Your task to perform on an android device: set default search engine in the chrome app Image 0: 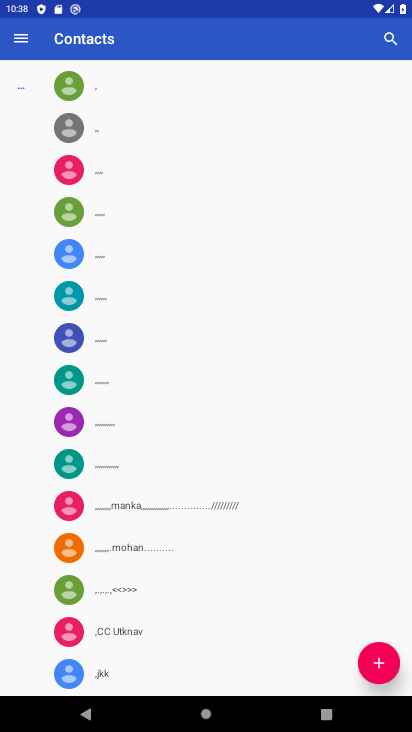
Step 0: press home button
Your task to perform on an android device: set default search engine in the chrome app Image 1: 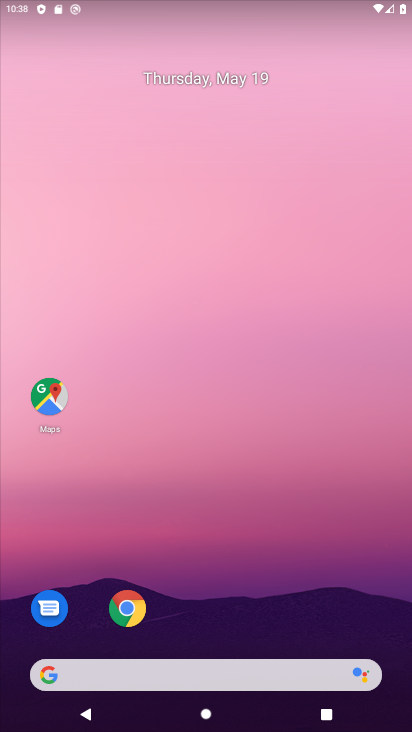
Step 1: click (113, 599)
Your task to perform on an android device: set default search engine in the chrome app Image 2: 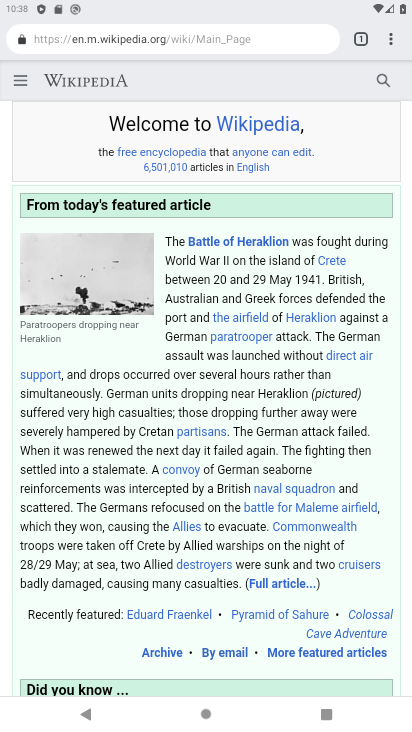
Step 2: press home button
Your task to perform on an android device: set default search engine in the chrome app Image 3: 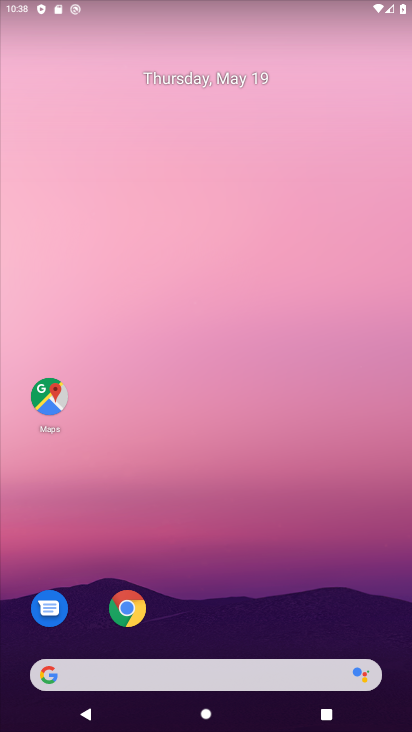
Step 3: click (130, 596)
Your task to perform on an android device: set default search engine in the chrome app Image 4: 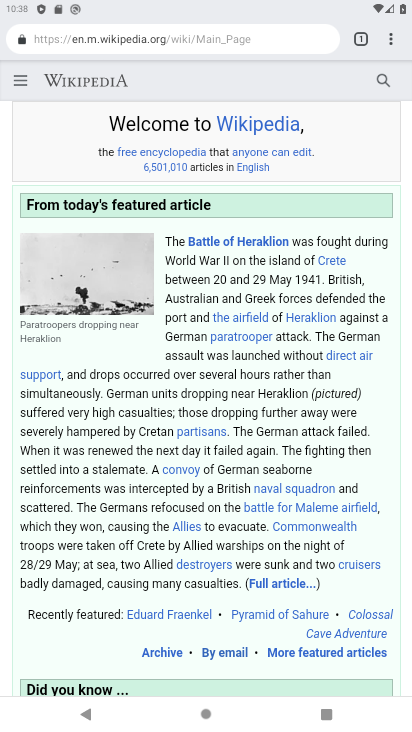
Step 4: click (393, 36)
Your task to perform on an android device: set default search engine in the chrome app Image 5: 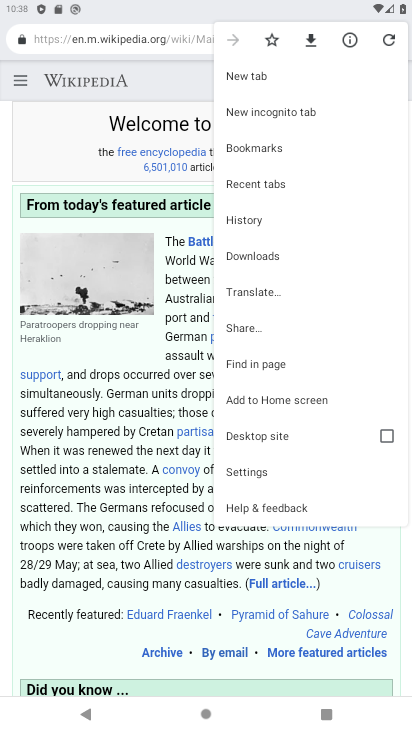
Step 5: click (242, 466)
Your task to perform on an android device: set default search engine in the chrome app Image 6: 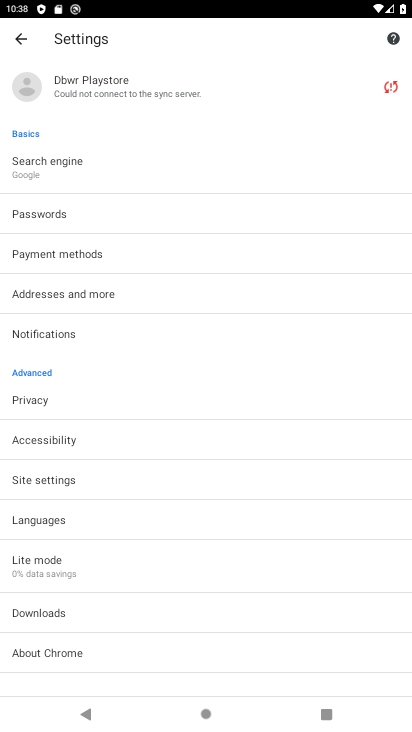
Step 6: click (32, 173)
Your task to perform on an android device: set default search engine in the chrome app Image 7: 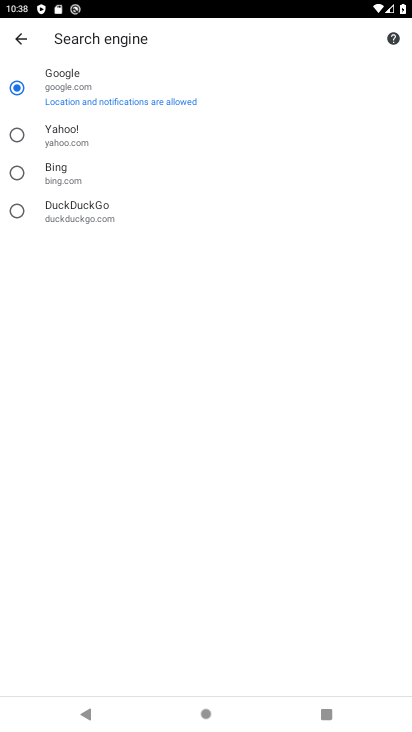
Step 7: task complete